Your task to perform on an android device: change the upload size in google photos Image 0: 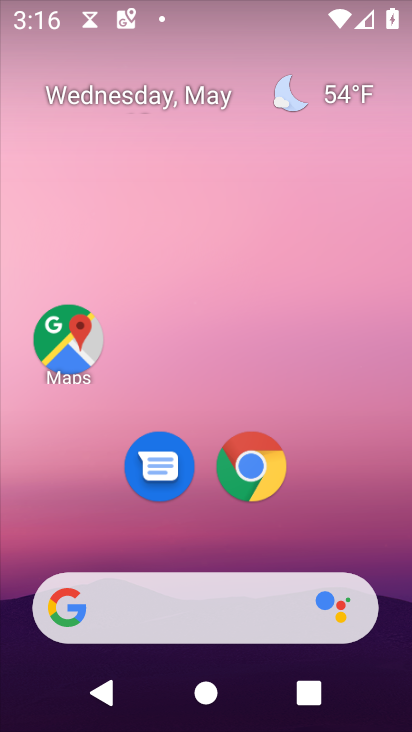
Step 0: drag from (389, 538) to (298, 16)
Your task to perform on an android device: change the upload size in google photos Image 1: 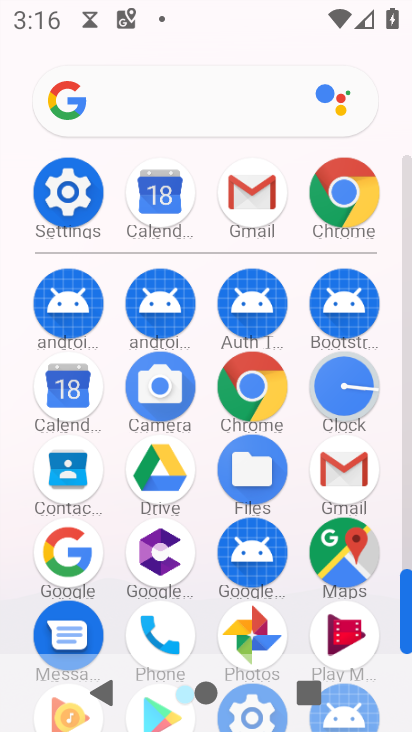
Step 1: click (252, 618)
Your task to perform on an android device: change the upload size in google photos Image 2: 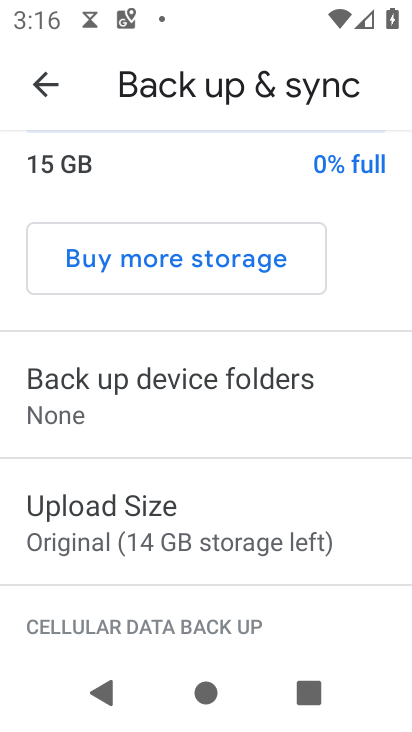
Step 2: click (207, 483)
Your task to perform on an android device: change the upload size in google photos Image 3: 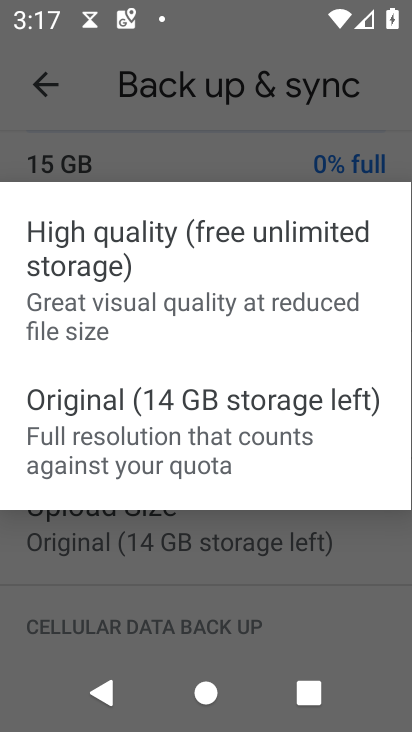
Step 3: click (232, 435)
Your task to perform on an android device: change the upload size in google photos Image 4: 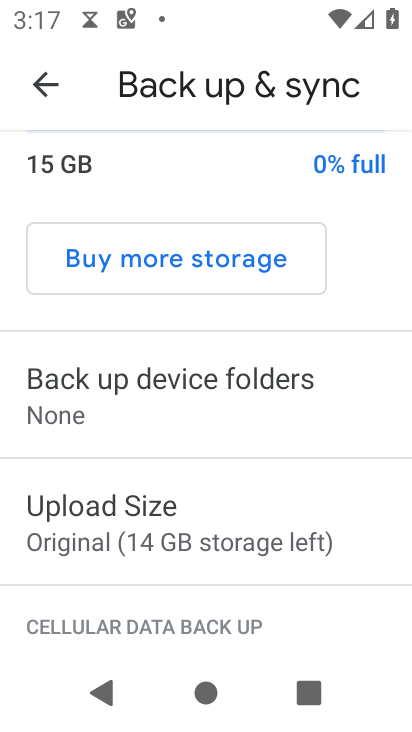
Step 4: task complete